Your task to perform on an android device: Open battery settings Image 0: 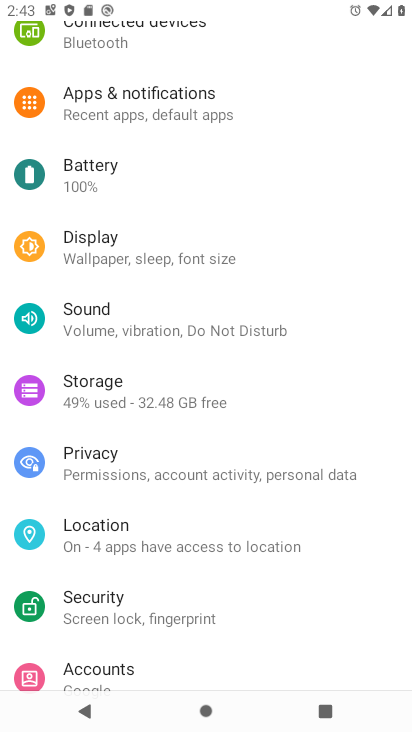
Step 0: click (129, 165)
Your task to perform on an android device: Open battery settings Image 1: 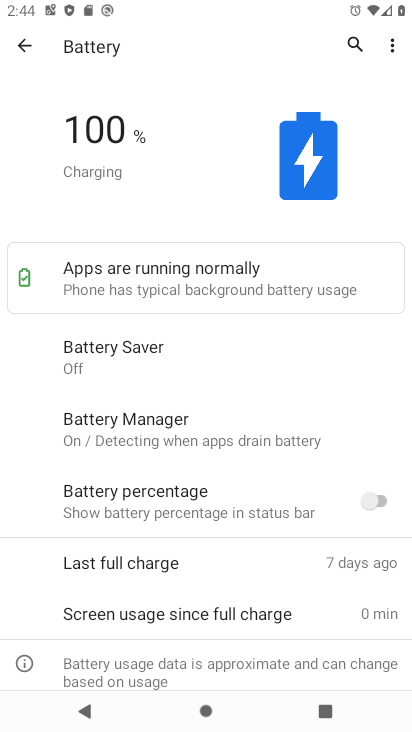
Step 1: task complete